Your task to perform on an android device: turn on translation in the chrome app Image 0: 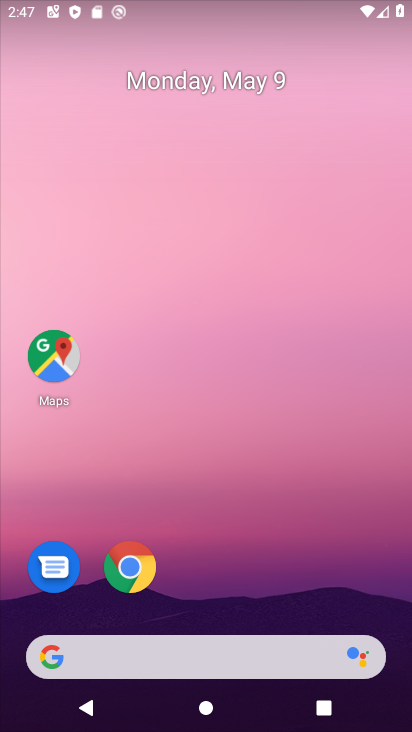
Step 0: click (117, 545)
Your task to perform on an android device: turn on translation in the chrome app Image 1: 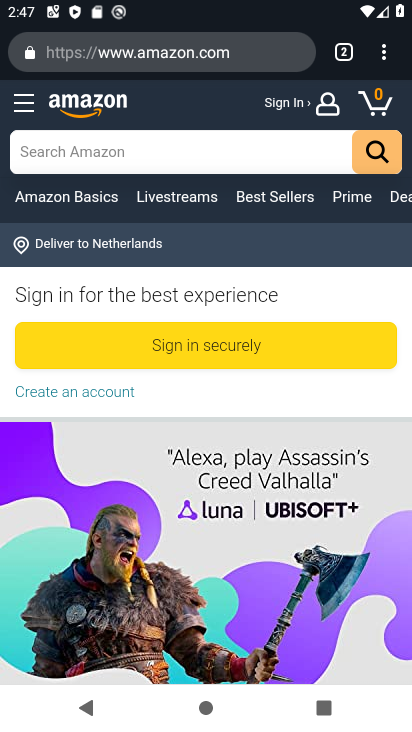
Step 1: click (385, 59)
Your task to perform on an android device: turn on translation in the chrome app Image 2: 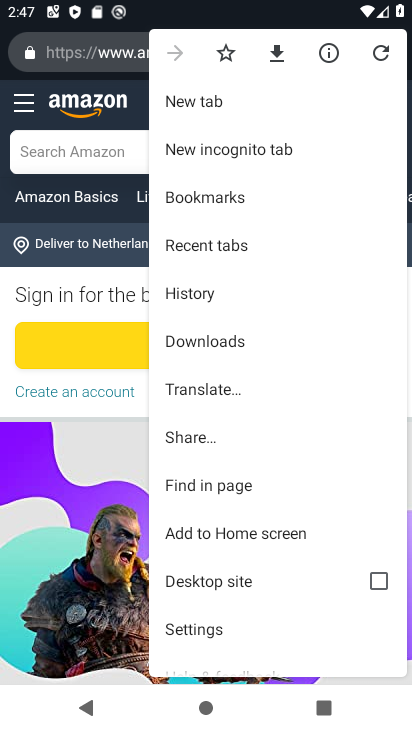
Step 2: click (221, 630)
Your task to perform on an android device: turn on translation in the chrome app Image 3: 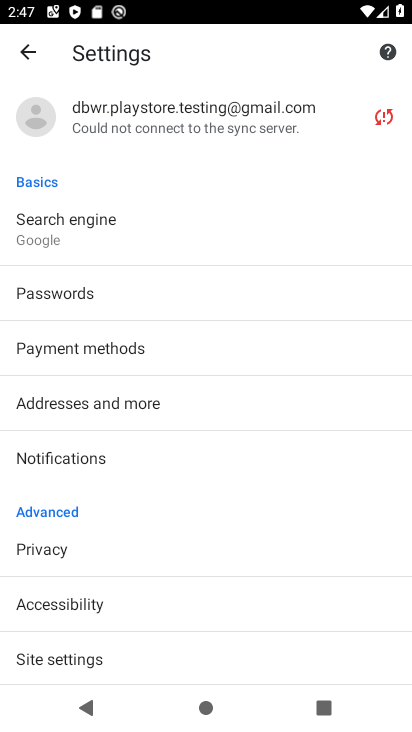
Step 3: drag from (155, 409) to (174, 100)
Your task to perform on an android device: turn on translation in the chrome app Image 4: 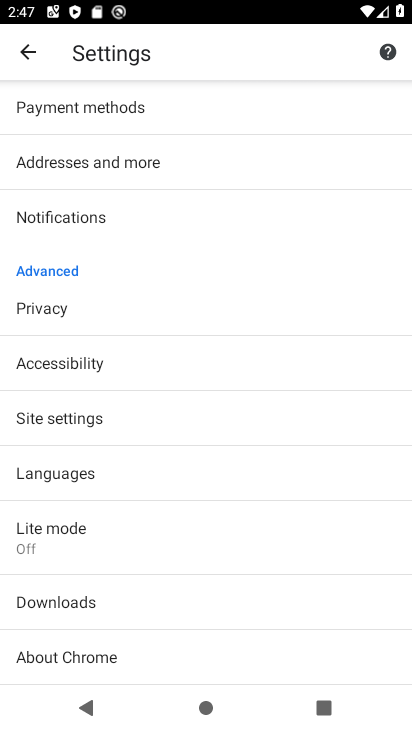
Step 4: click (107, 474)
Your task to perform on an android device: turn on translation in the chrome app Image 5: 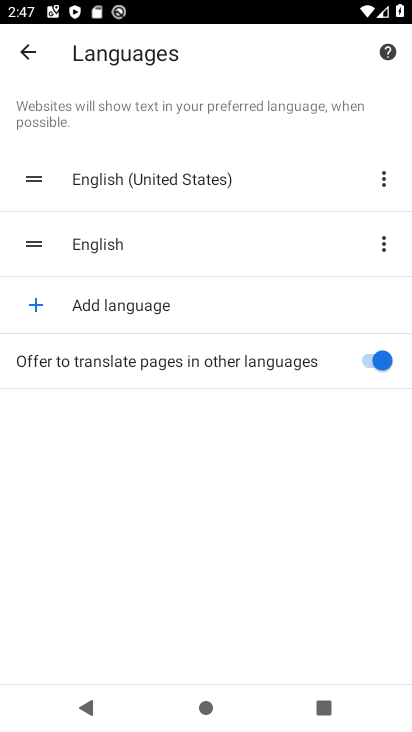
Step 5: task complete